Your task to perform on an android device: allow cookies in the chrome app Image 0: 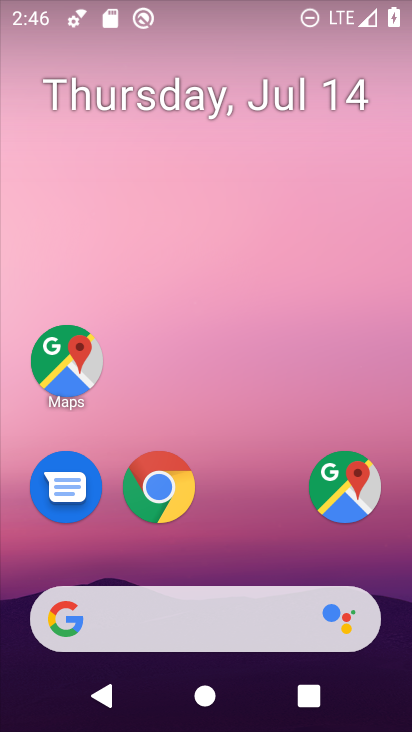
Step 0: drag from (263, 537) to (306, 185)
Your task to perform on an android device: allow cookies in the chrome app Image 1: 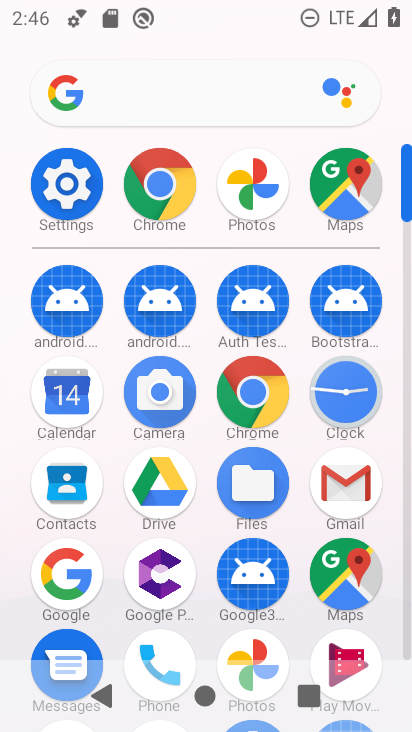
Step 1: click (258, 396)
Your task to perform on an android device: allow cookies in the chrome app Image 2: 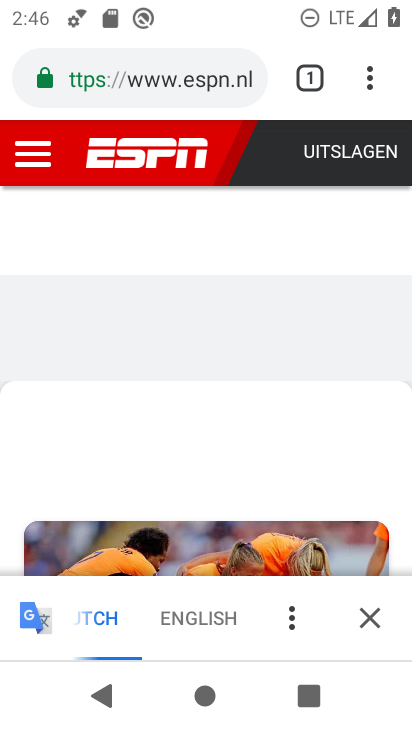
Step 2: click (367, 88)
Your task to perform on an android device: allow cookies in the chrome app Image 3: 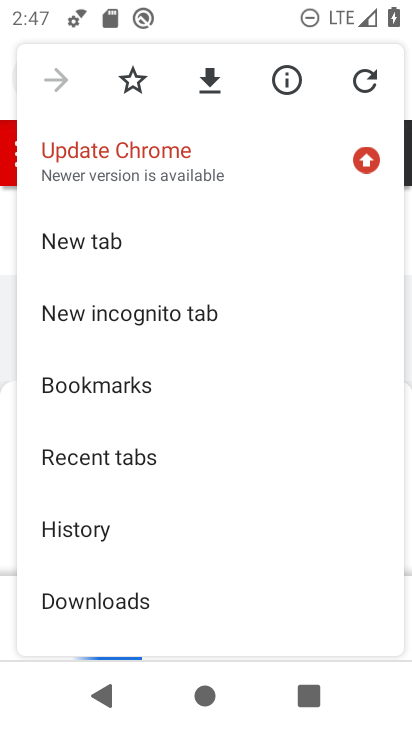
Step 3: drag from (274, 569) to (281, 491)
Your task to perform on an android device: allow cookies in the chrome app Image 4: 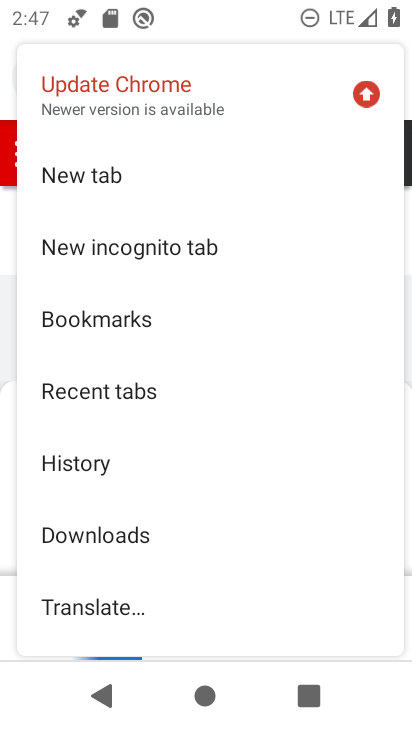
Step 4: drag from (297, 558) to (315, 449)
Your task to perform on an android device: allow cookies in the chrome app Image 5: 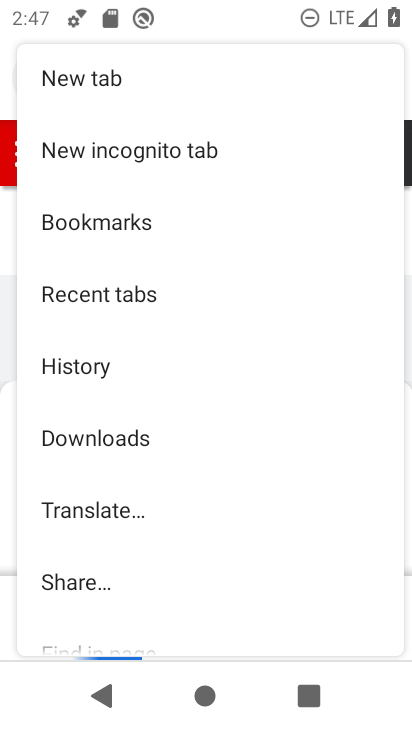
Step 5: drag from (345, 545) to (358, 451)
Your task to perform on an android device: allow cookies in the chrome app Image 6: 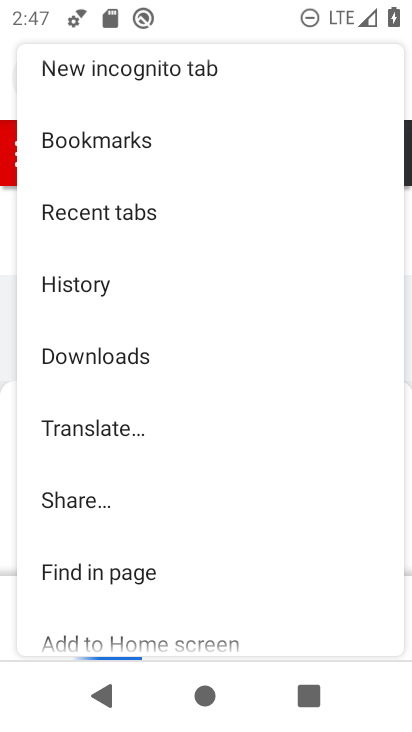
Step 6: drag from (350, 561) to (346, 463)
Your task to perform on an android device: allow cookies in the chrome app Image 7: 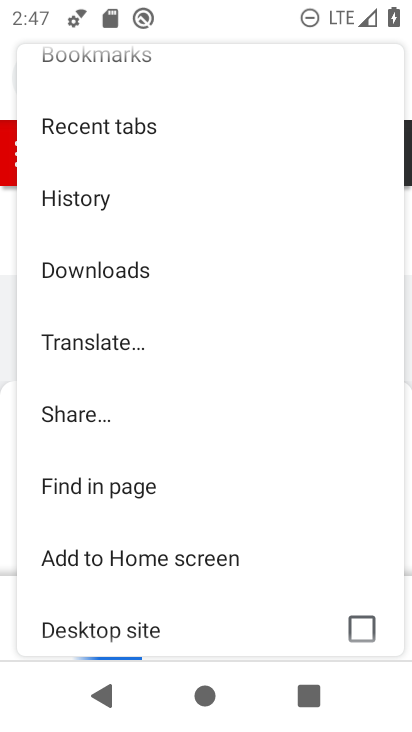
Step 7: drag from (319, 555) to (323, 414)
Your task to perform on an android device: allow cookies in the chrome app Image 8: 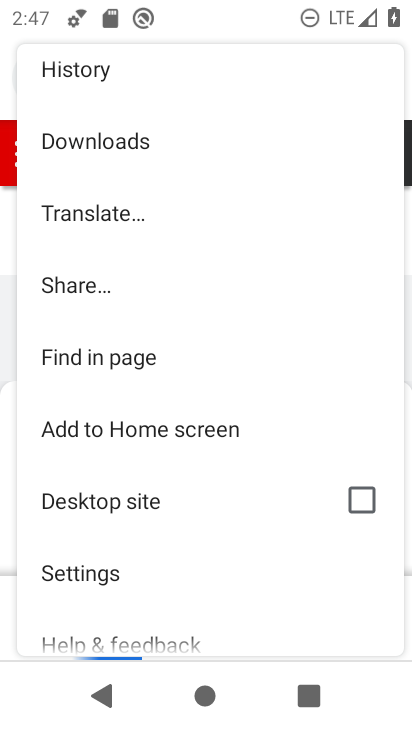
Step 8: drag from (198, 561) to (203, 435)
Your task to perform on an android device: allow cookies in the chrome app Image 9: 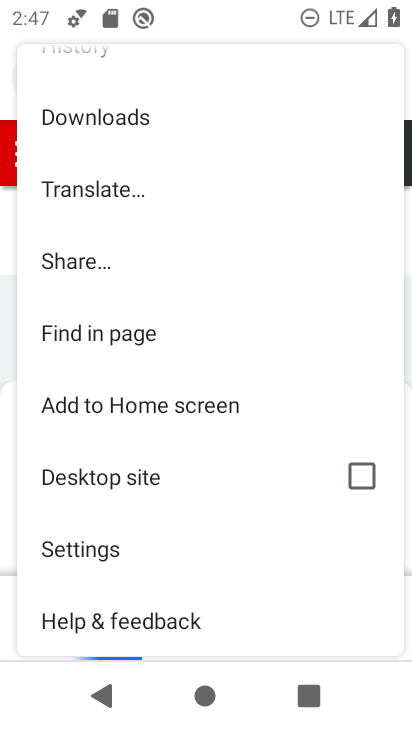
Step 9: click (175, 544)
Your task to perform on an android device: allow cookies in the chrome app Image 10: 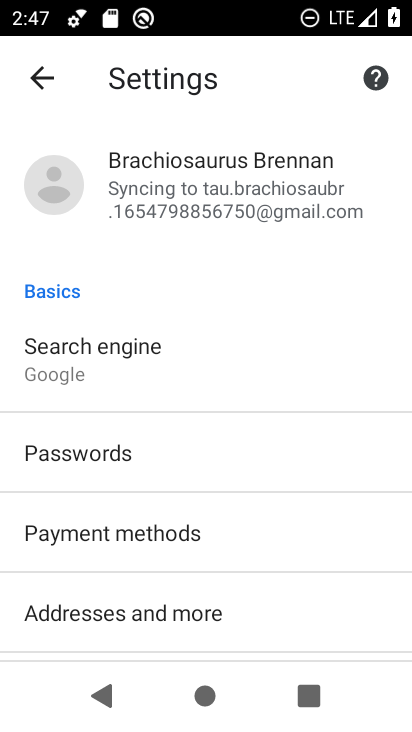
Step 10: drag from (296, 538) to (300, 450)
Your task to perform on an android device: allow cookies in the chrome app Image 11: 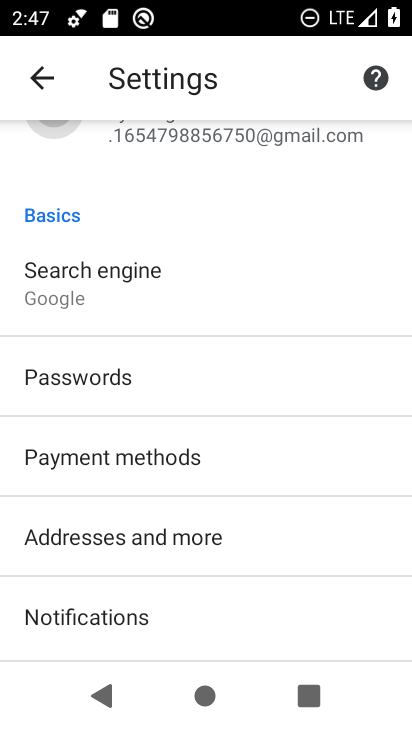
Step 11: drag from (282, 557) to (295, 448)
Your task to perform on an android device: allow cookies in the chrome app Image 12: 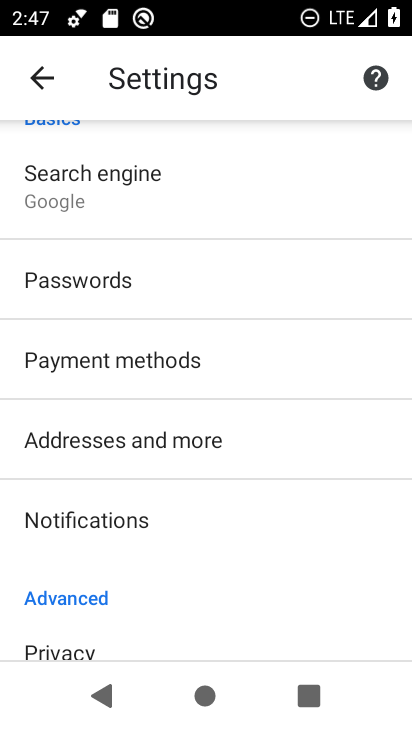
Step 12: drag from (278, 557) to (282, 456)
Your task to perform on an android device: allow cookies in the chrome app Image 13: 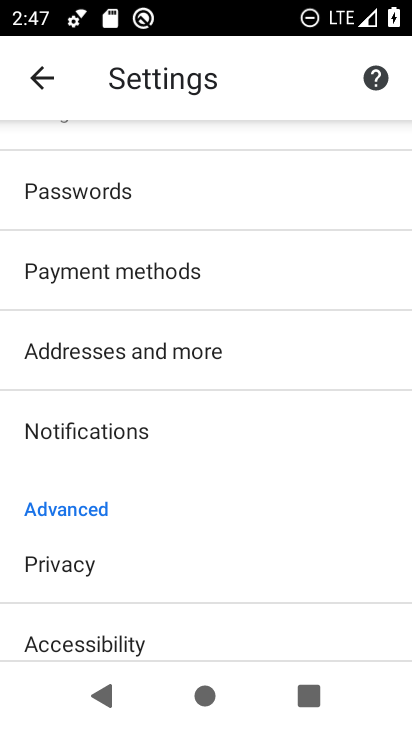
Step 13: drag from (279, 551) to (273, 417)
Your task to perform on an android device: allow cookies in the chrome app Image 14: 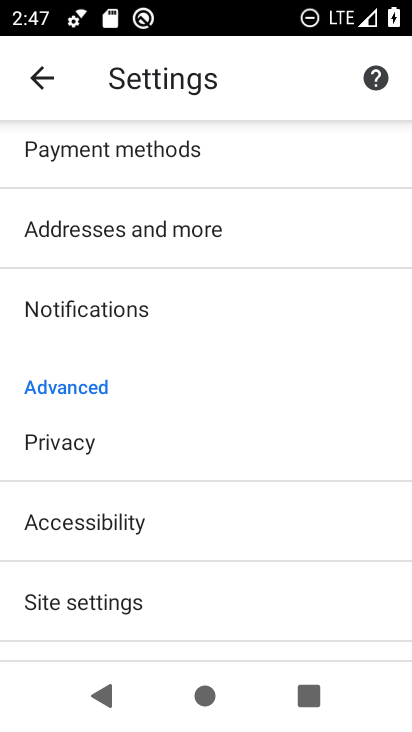
Step 14: drag from (273, 536) to (271, 413)
Your task to perform on an android device: allow cookies in the chrome app Image 15: 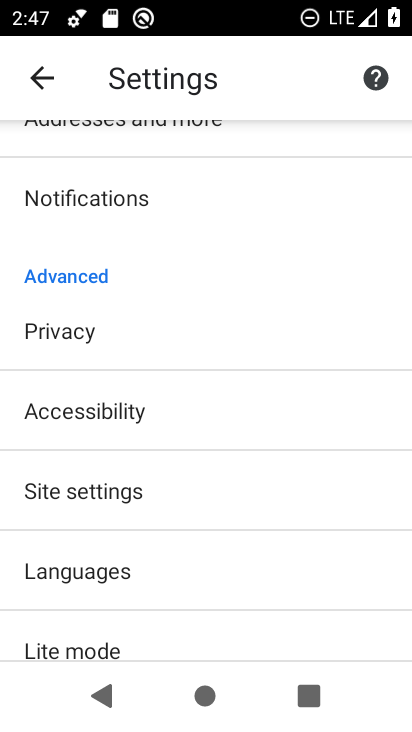
Step 15: drag from (281, 549) to (289, 396)
Your task to perform on an android device: allow cookies in the chrome app Image 16: 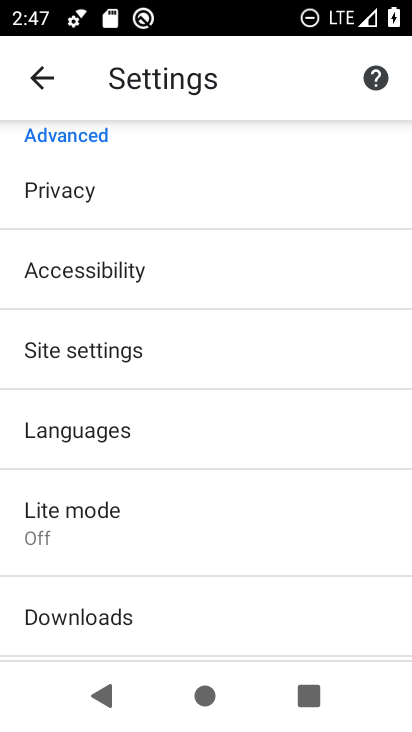
Step 16: drag from (291, 478) to (298, 434)
Your task to perform on an android device: allow cookies in the chrome app Image 17: 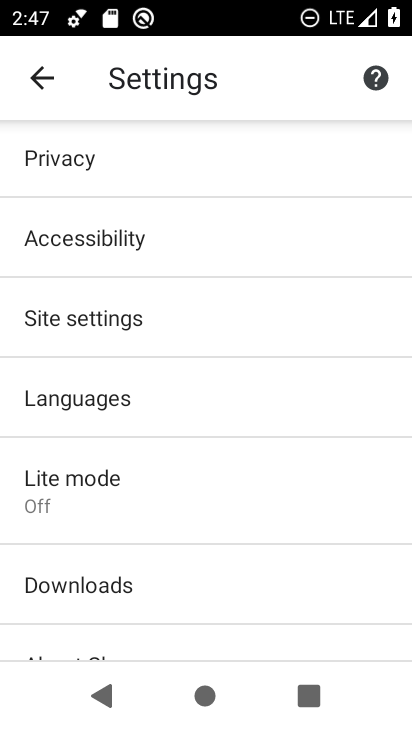
Step 17: drag from (292, 277) to (283, 359)
Your task to perform on an android device: allow cookies in the chrome app Image 18: 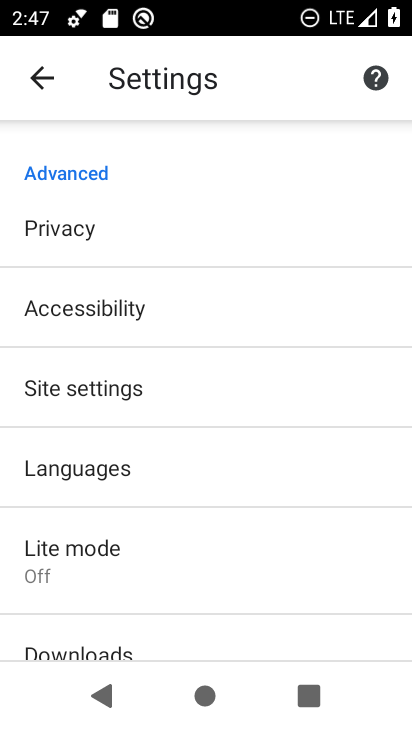
Step 18: click (274, 385)
Your task to perform on an android device: allow cookies in the chrome app Image 19: 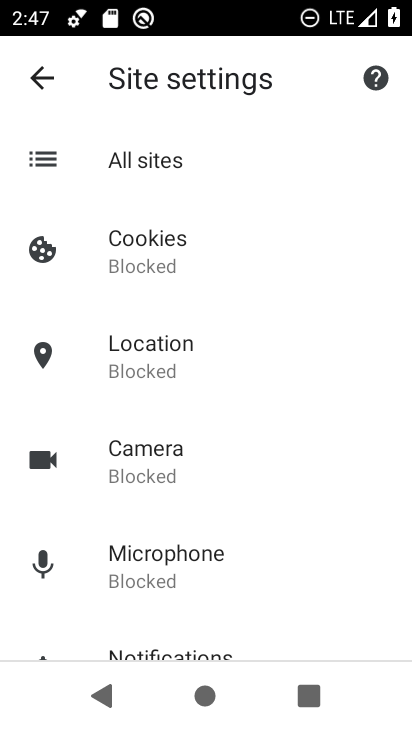
Step 19: click (203, 274)
Your task to perform on an android device: allow cookies in the chrome app Image 20: 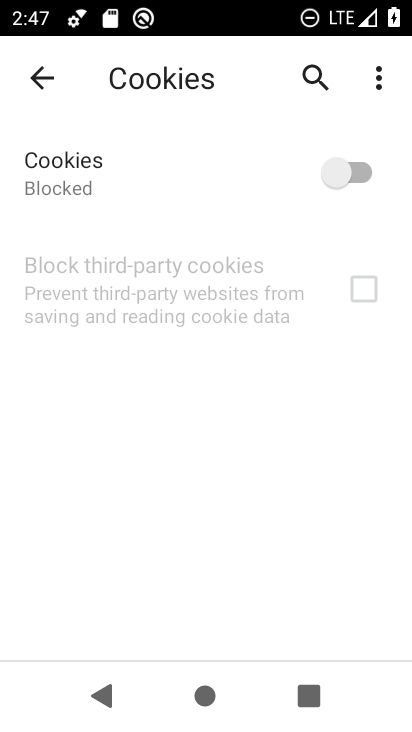
Step 20: click (334, 183)
Your task to perform on an android device: allow cookies in the chrome app Image 21: 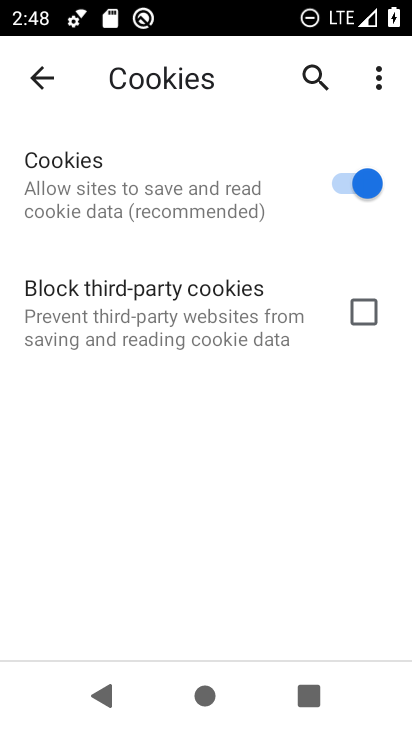
Step 21: task complete